Your task to perform on an android device: turn off airplane mode Image 0: 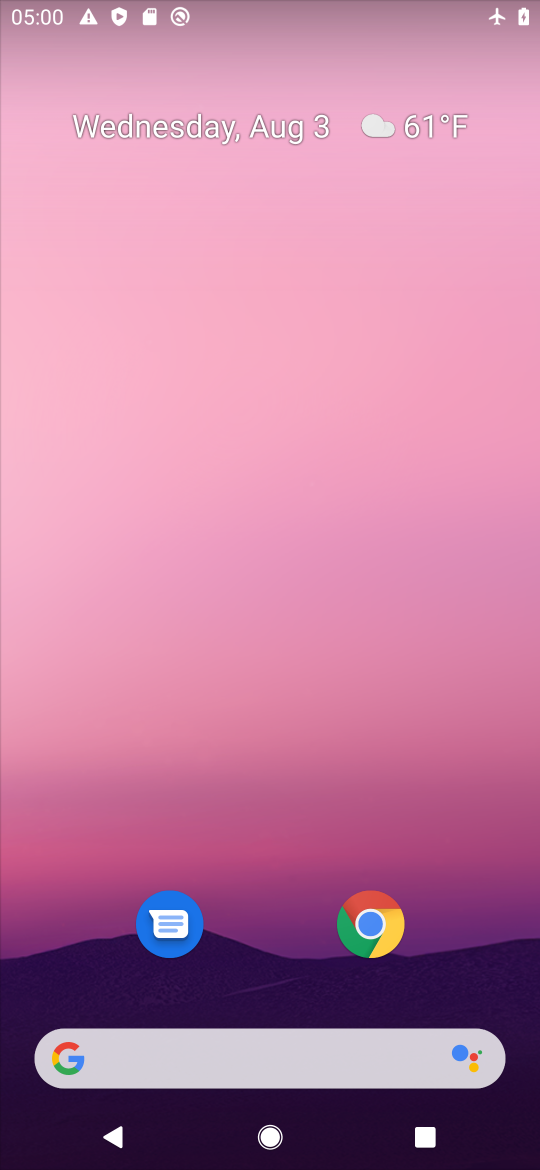
Step 0: drag from (256, 953) to (189, 234)
Your task to perform on an android device: turn off airplane mode Image 1: 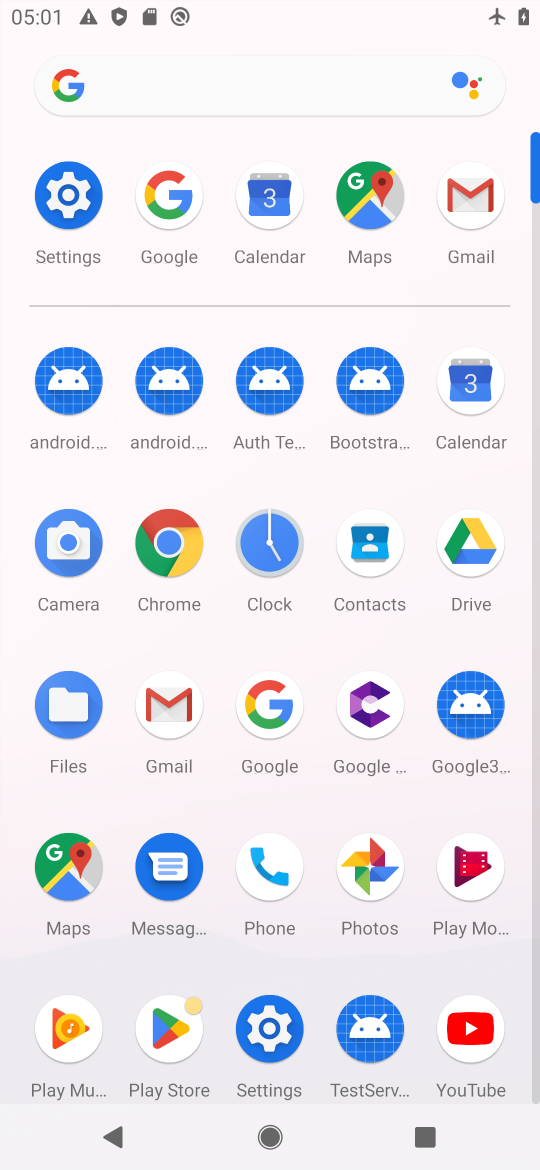
Step 1: click (66, 199)
Your task to perform on an android device: turn off airplane mode Image 2: 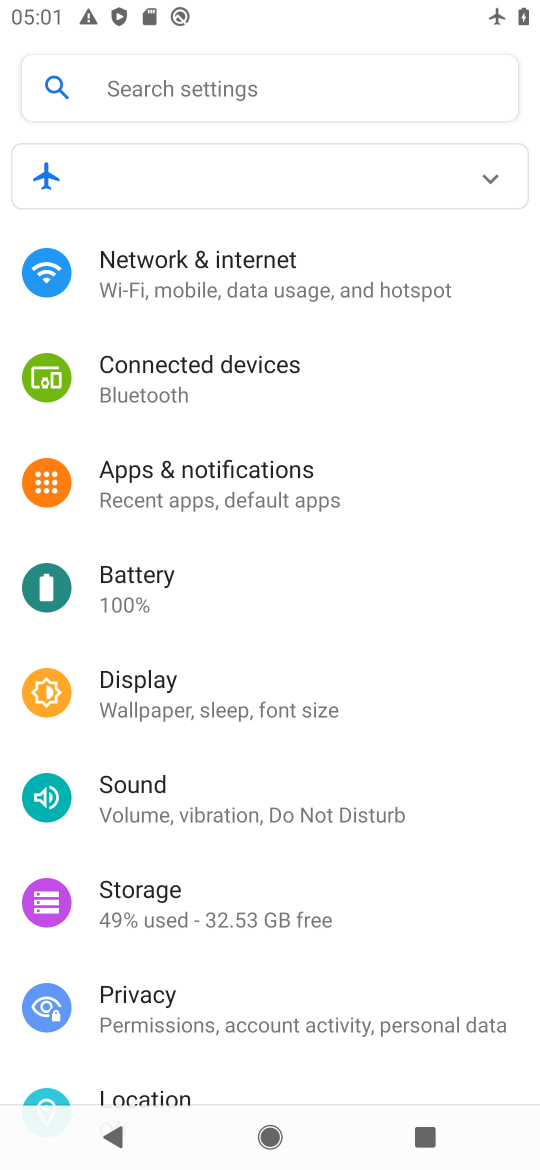
Step 2: click (238, 267)
Your task to perform on an android device: turn off airplane mode Image 3: 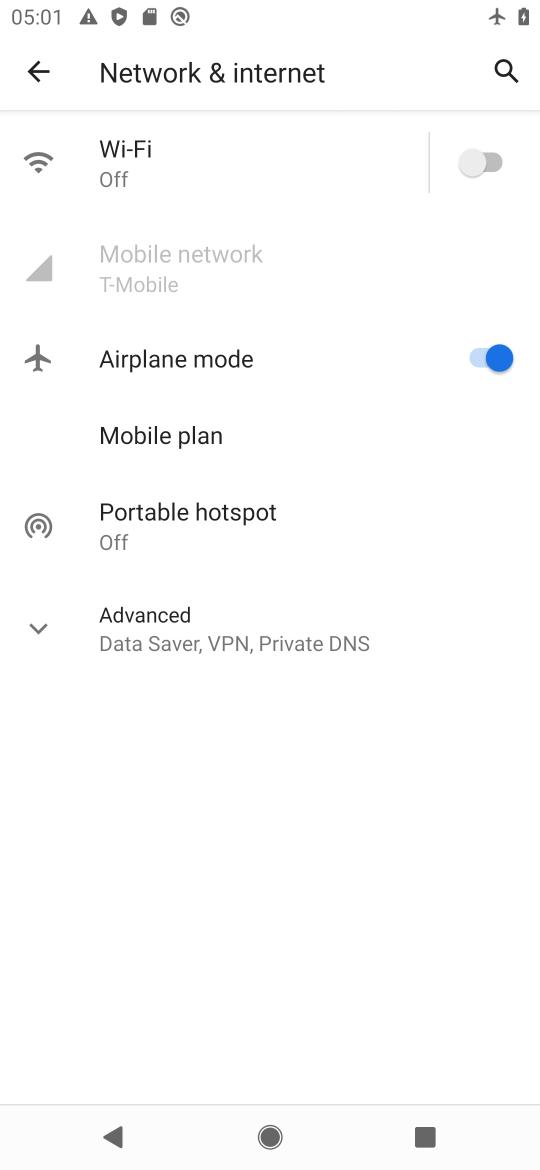
Step 3: click (470, 367)
Your task to perform on an android device: turn off airplane mode Image 4: 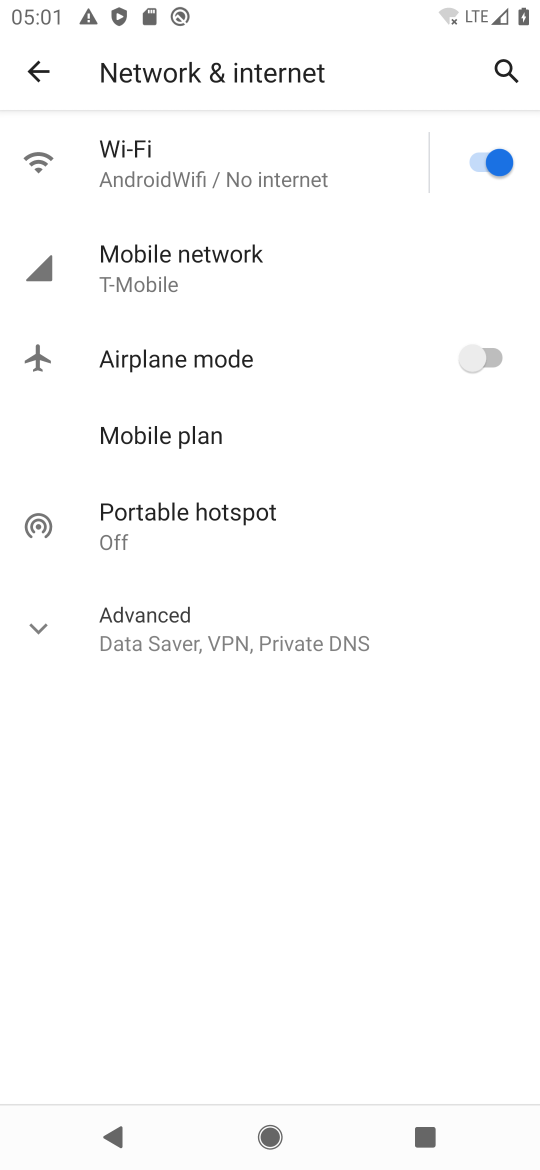
Step 4: task complete